Your task to perform on an android device: check android version Image 0: 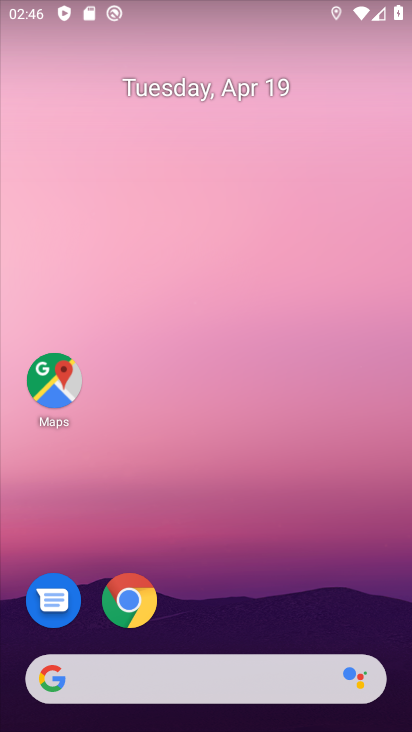
Step 0: drag from (387, 530) to (284, 117)
Your task to perform on an android device: check android version Image 1: 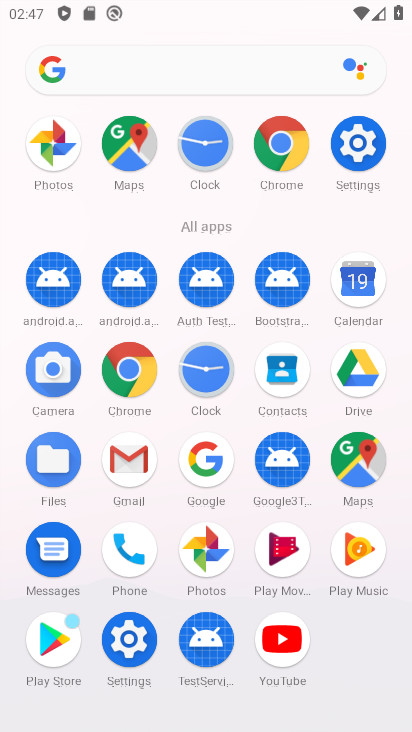
Step 1: click (362, 154)
Your task to perform on an android device: check android version Image 2: 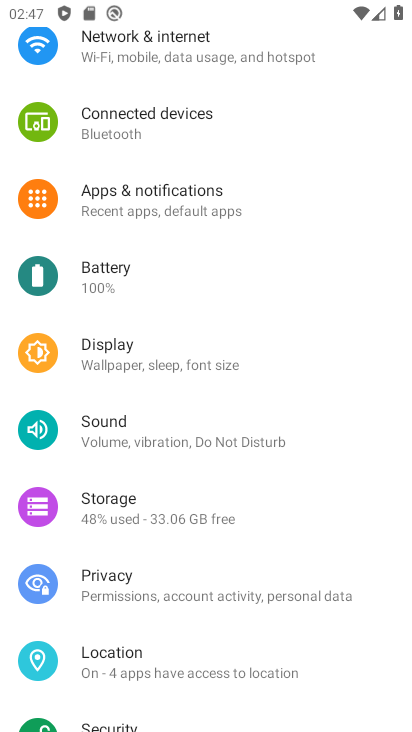
Step 2: drag from (296, 625) to (284, 257)
Your task to perform on an android device: check android version Image 3: 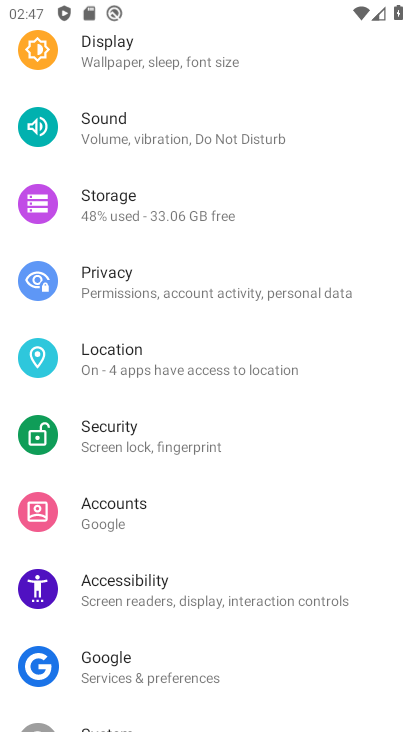
Step 3: drag from (285, 654) to (268, 131)
Your task to perform on an android device: check android version Image 4: 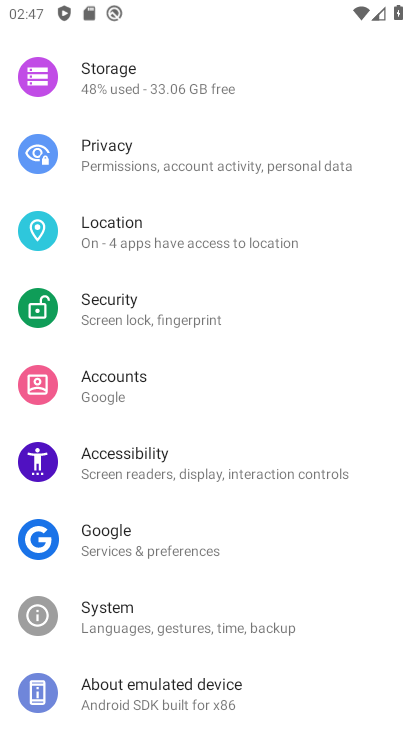
Step 4: click (233, 691)
Your task to perform on an android device: check android version Image 5: 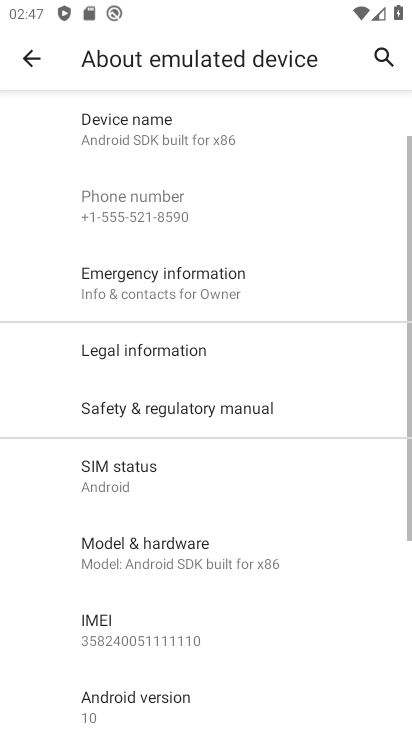
Step 5: drag from (284, 491) to (272, 295)
Your task to perform on an android device: check android version Image 6: 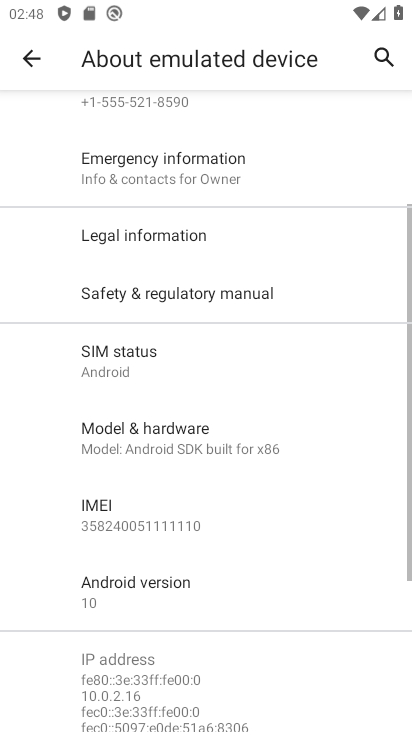
Step 6: click (273, 609)
Your task to perform on an android device: check android version Image 7: 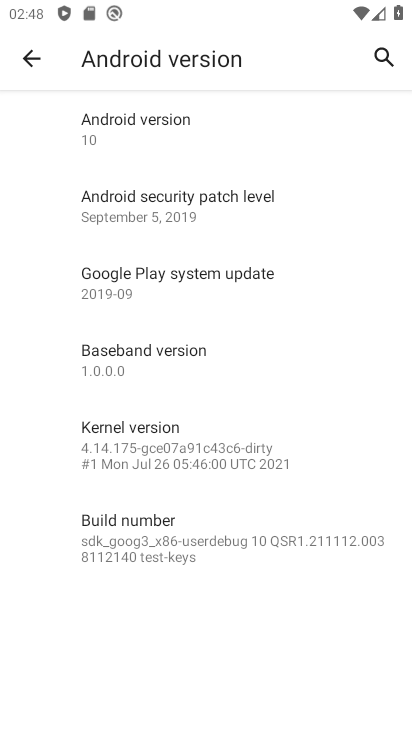
Step 7: task complete